Your task to perform on an android device: See recent photos Image 0: 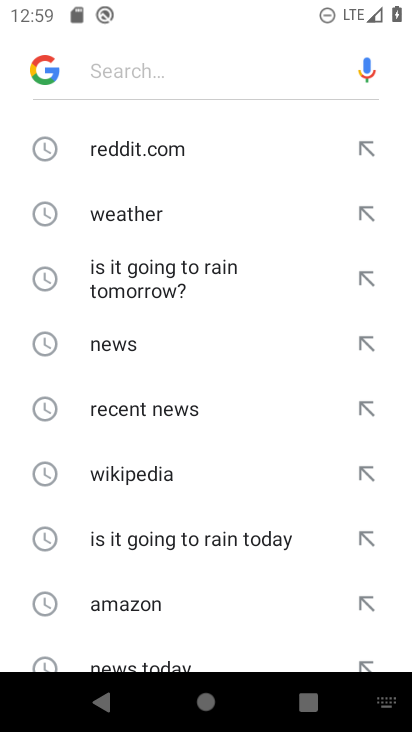
Step 0: press back button
Your task to perform on an android device: See recent photos Image 1: 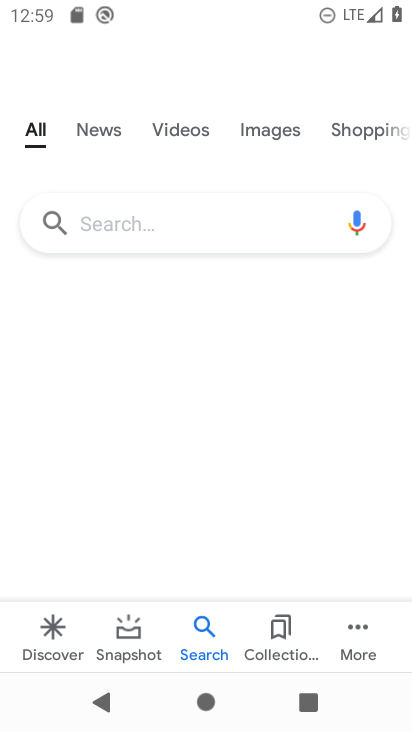
Step 1: press back button
Your task to perform on an android device: See recent photos Image 2: 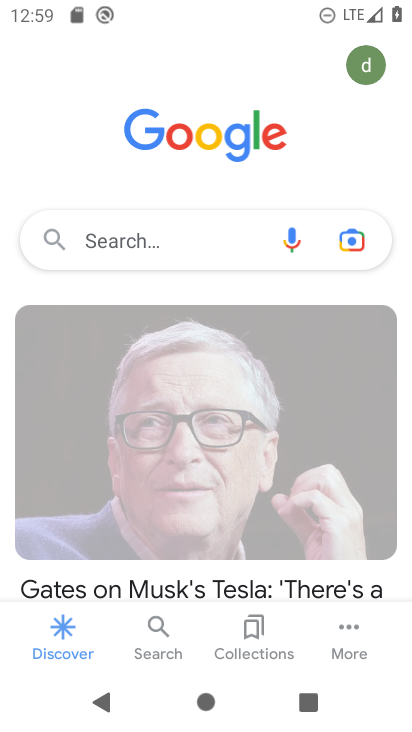
Step 2: press back button
Your task to perform on an android device: See recent photos Image 3: 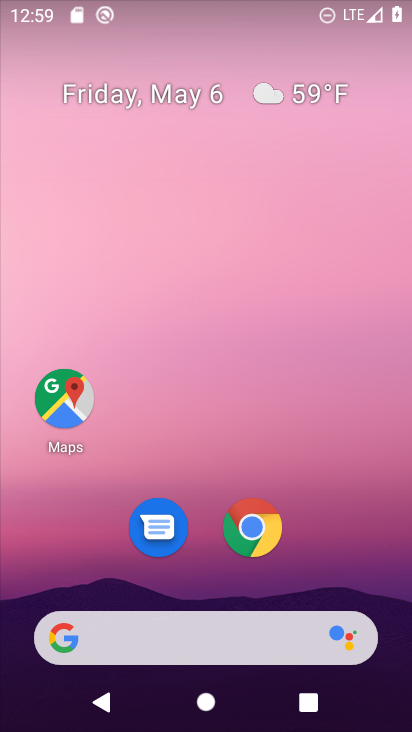
Step 3: drag from (227, 467) to (213, 29)
Your task to perform on an android device: See recent photos Image 4: 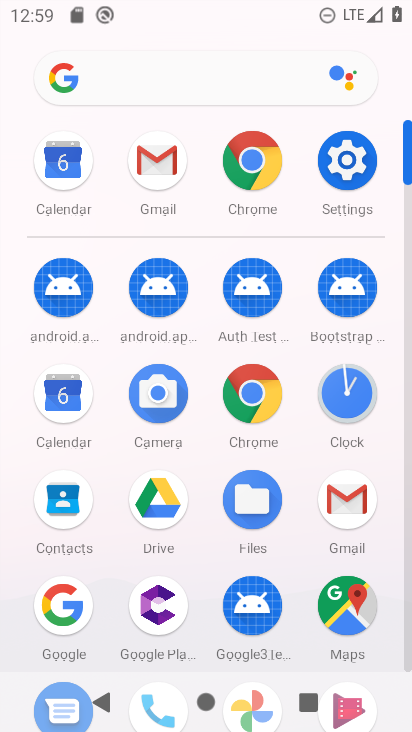
Step 4: drag from (205, 566) to (221, 305)
Your task to perform on an android device: See recent photos Image 5: 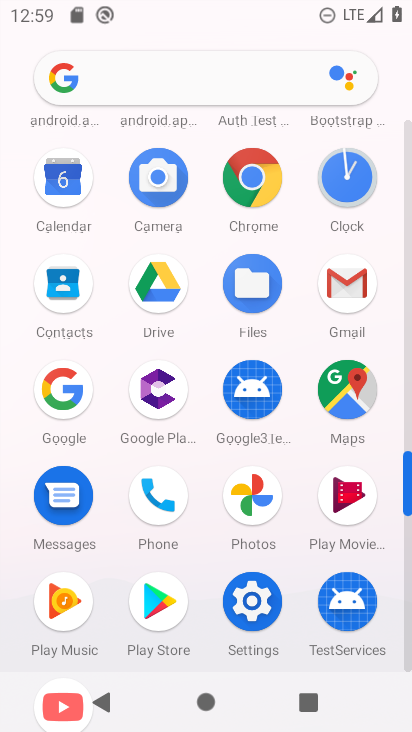
Step 5: click (249, 494)
Your task to perform on an android device: See recent photos Image 6: 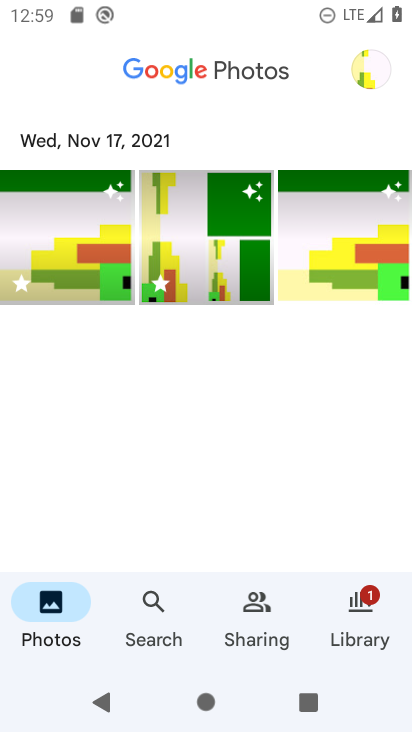
Step 6: click (87, 251)
Your task to perform on an android device: See recent photos Image 7: 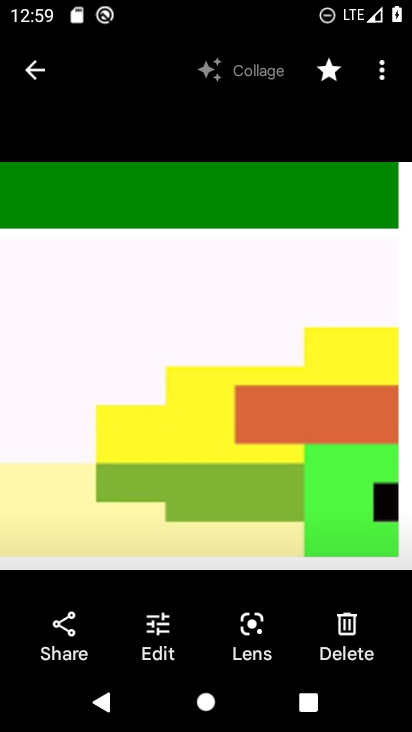
Step 7: task complete